Your task to perform on an android device: turn off javascript in the chrome app Image 0: 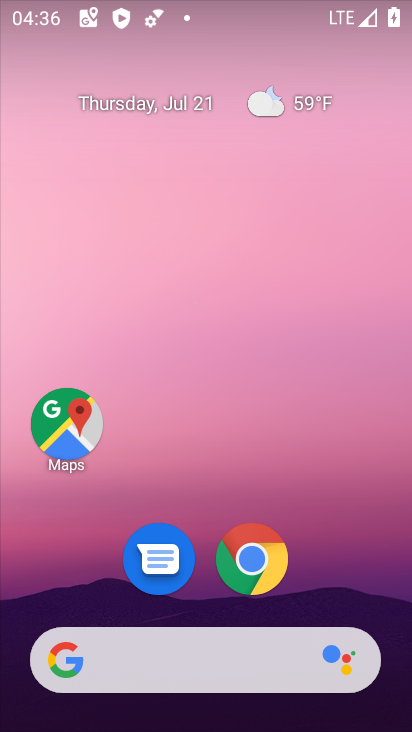
Step 0: click (267, 561)
Your task to perform on an android device: turn off javascript in the chrome app Image 1: 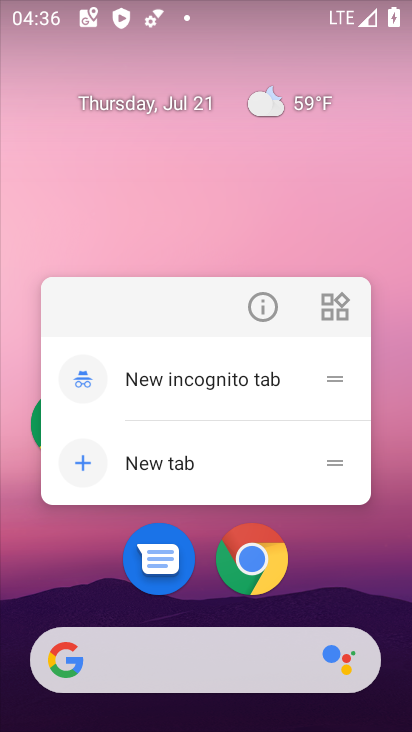
Step 1: click (261, 578)
Your task to perform on an android device: turn off javascript in the chrome app Image 2: 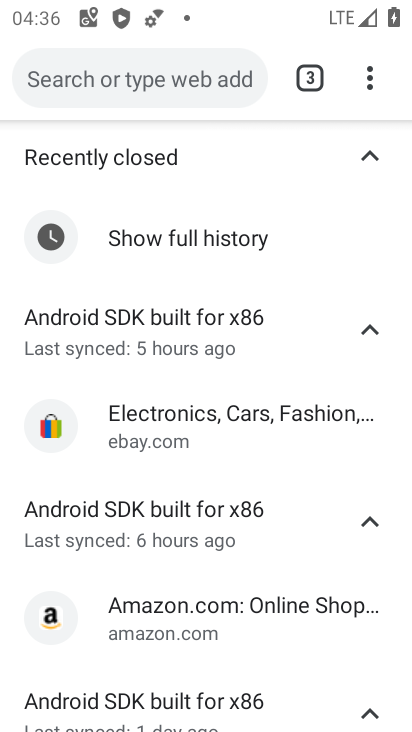
Step 2: drag from (379, 61) to (121, 625)
Your task to perform on an android device: turn off javascript in the chrome app Image 3: 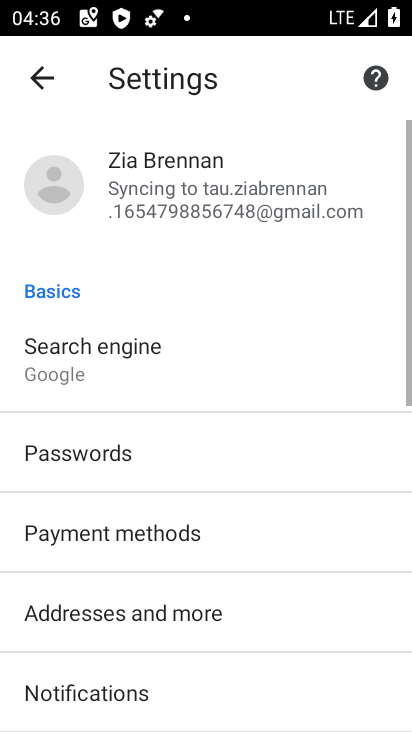
Step 3: drag from (108, 616) to (254, 9)
Your task to perform on an android device: turn off javascript in the chrome app Image 4: 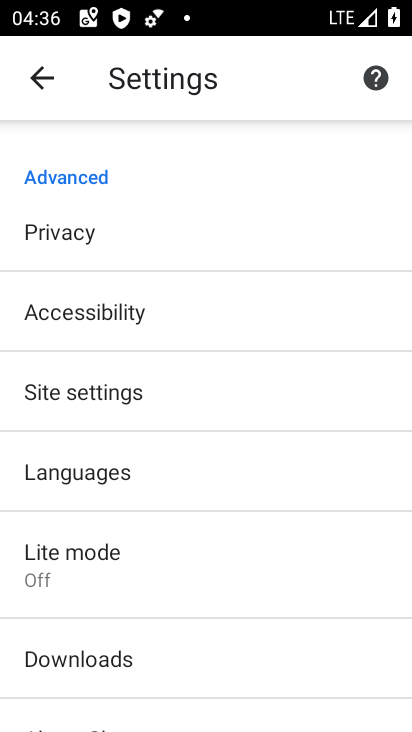
Step 4: click (100, 379)
Your task to perform on an android device: turn off javascript in the chrome app Image 5: 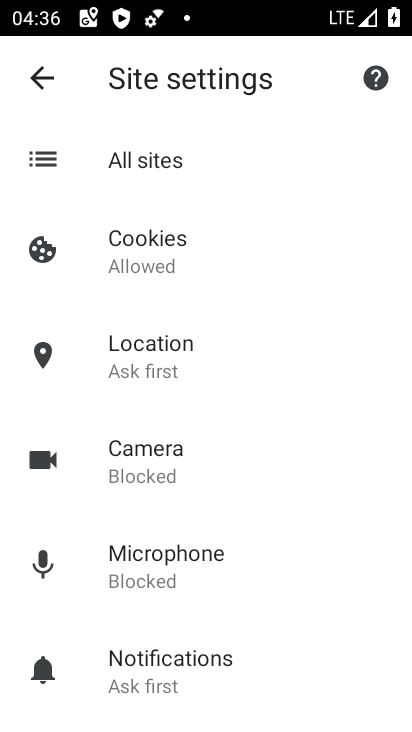
Step 5: drag from (163, 643) to (249, 144)
Your task to perform on an android device: turn off javascript in the chrome app Image 6: 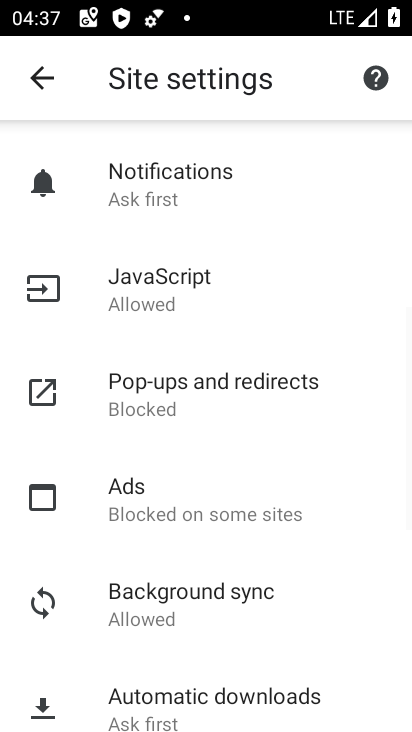
Step 6: click (150, 287)
Your task to perform on an android device: turn off javascript in the chrome app Image 7: 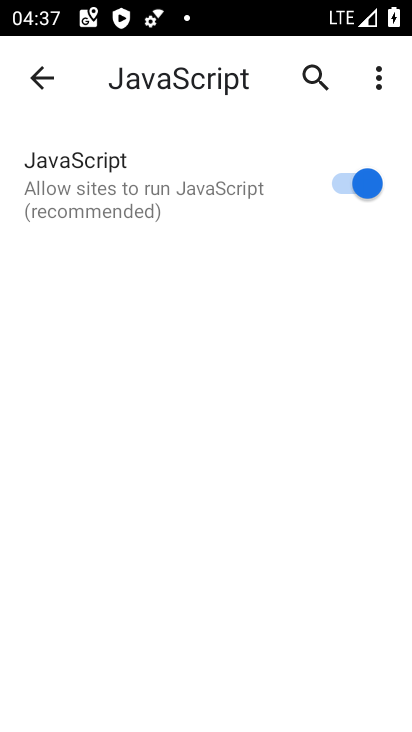
Step 7: click (374, 174)
Your task to perform on an android device: turn off javascript in the chrome app Image 8: 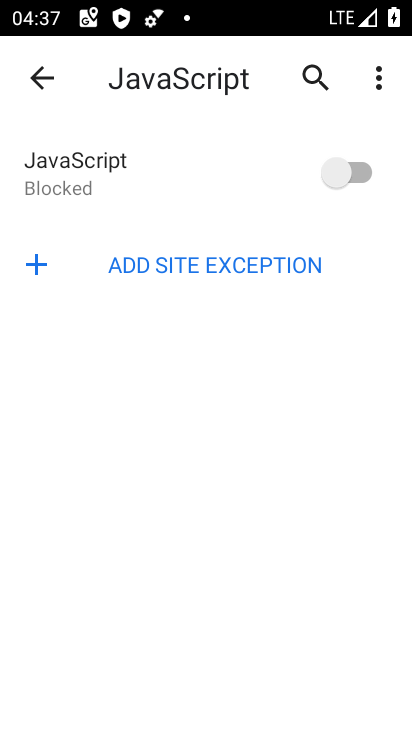
Step 8: task complete